Your task to perform on an android device: Search for vegetarian restaurants on Maps Image 0: 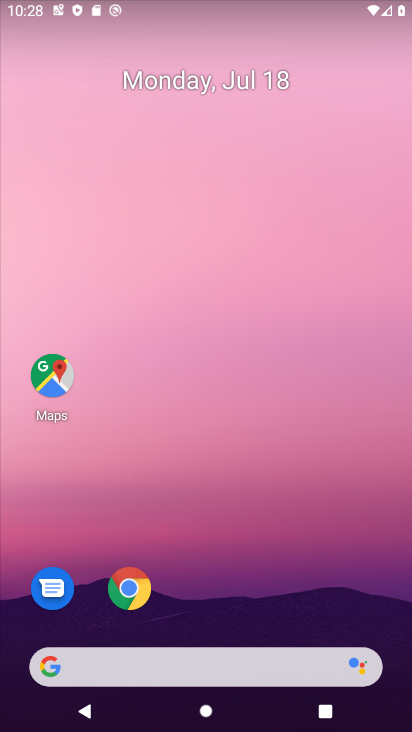
Step 0: drag from (230, 718) to (230, 140)
Your task to perform on an android device: Search for vegetarian restaurants on Maps Image 1: 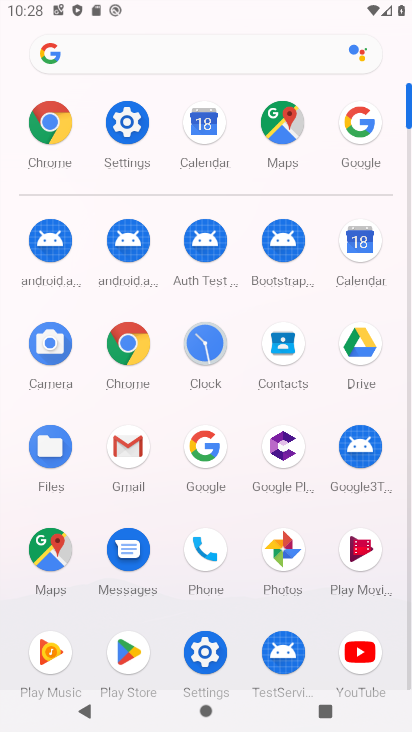
Step 1: click (279, 120)
Your task to perform on an android device: Search for vegetarian restaurants on Maps Image 2: 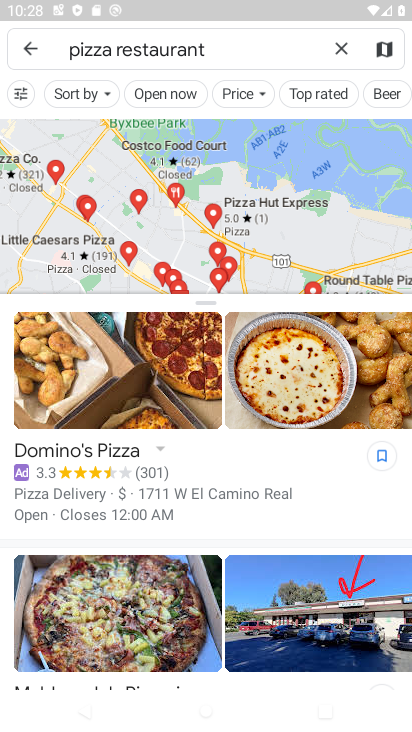
Step 2: click (343, 50)
Your task to perform on an android device: Search for vegetarian restaurants on Maps Image 3: 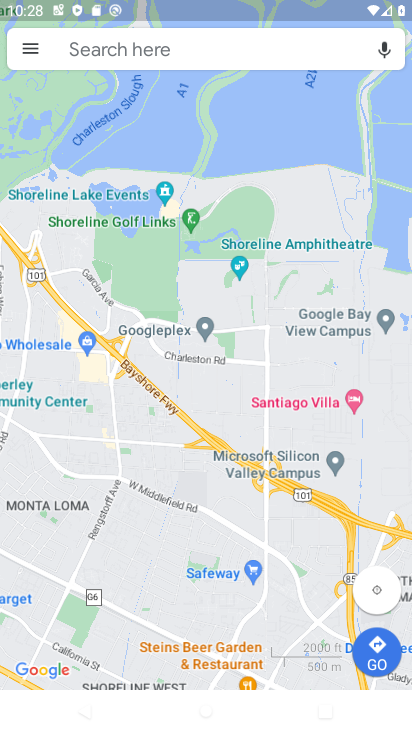
Step 3: click (128, 52)
Your task to perform on an android device: Search for vegetarian restaurants on Maps Image 4: 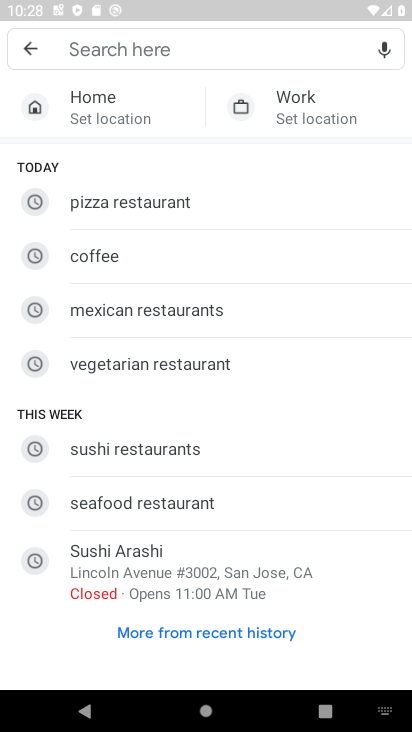
Step 4: type "vegetarian restaurants"
Your task to perform on an android device: Search for vegetarian restaurants on Maps Image 5: 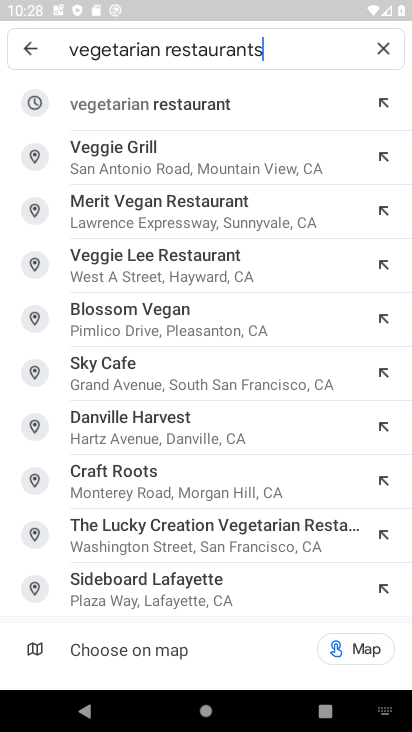
Step 5: click (222, 105)
Your task to perform on an android device: Search for vegetarian restaurants on Maps Image 6: 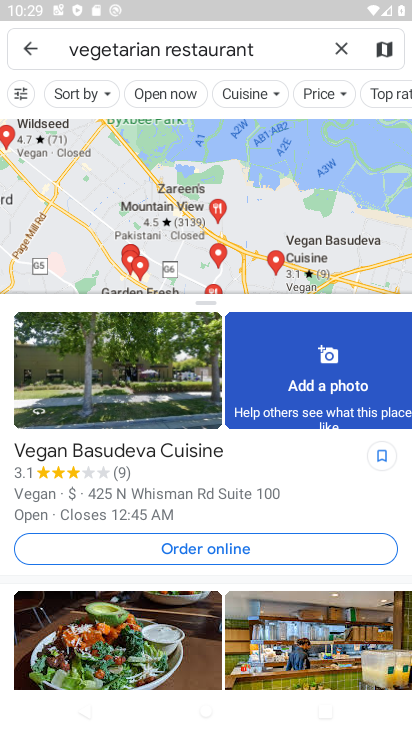
Step 6: task complete